Your task to perform on an android device: Open Android settings Image 0: 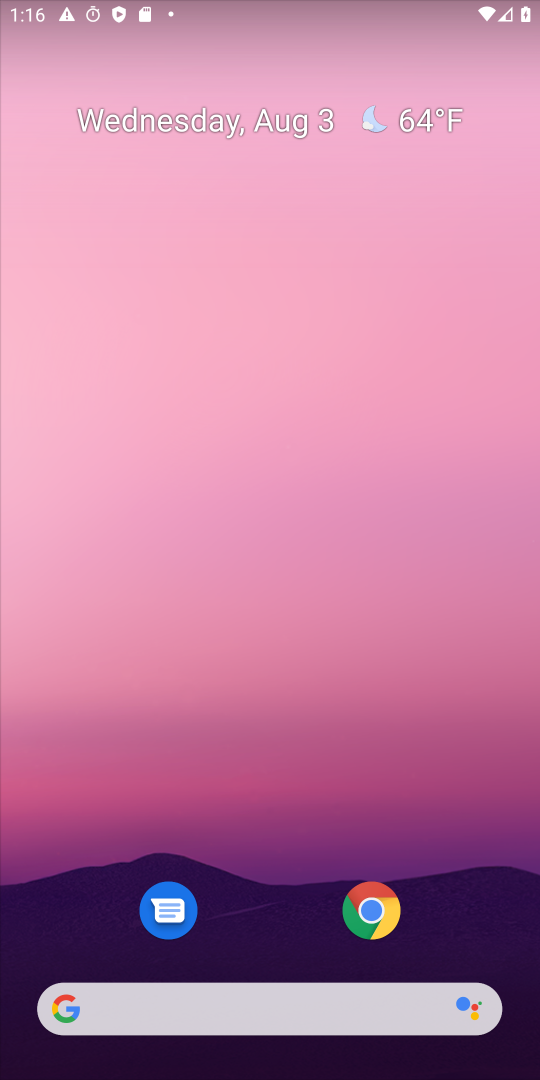
Step 0: drag from (308, 518) to (267, 98)
Your task to perform on an android device: Open Android settings Image 1: 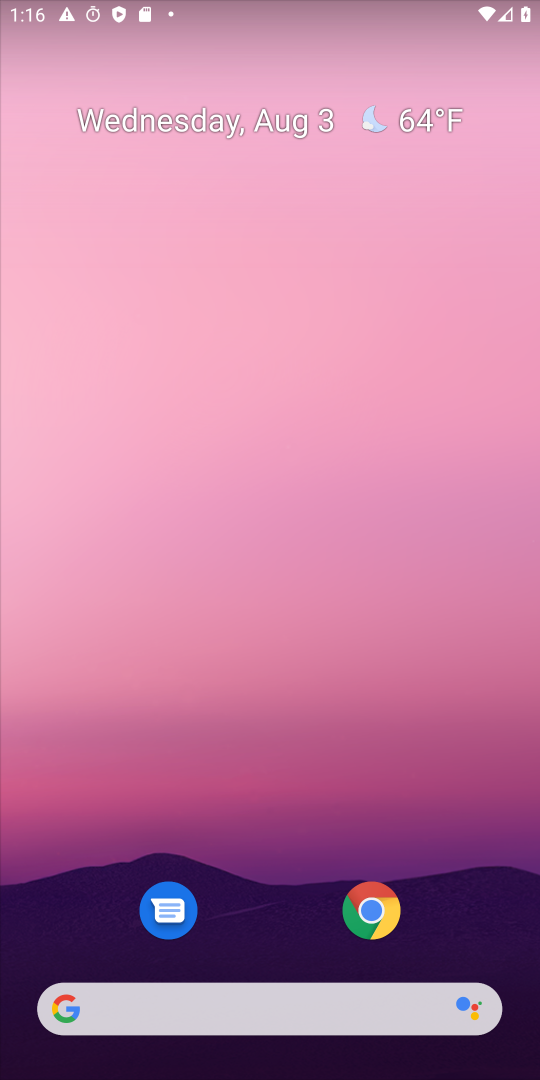
Step 1: drag from (338, 875) to (322, 4)
Your task to perform on an android device: Open Android settings Image 2: 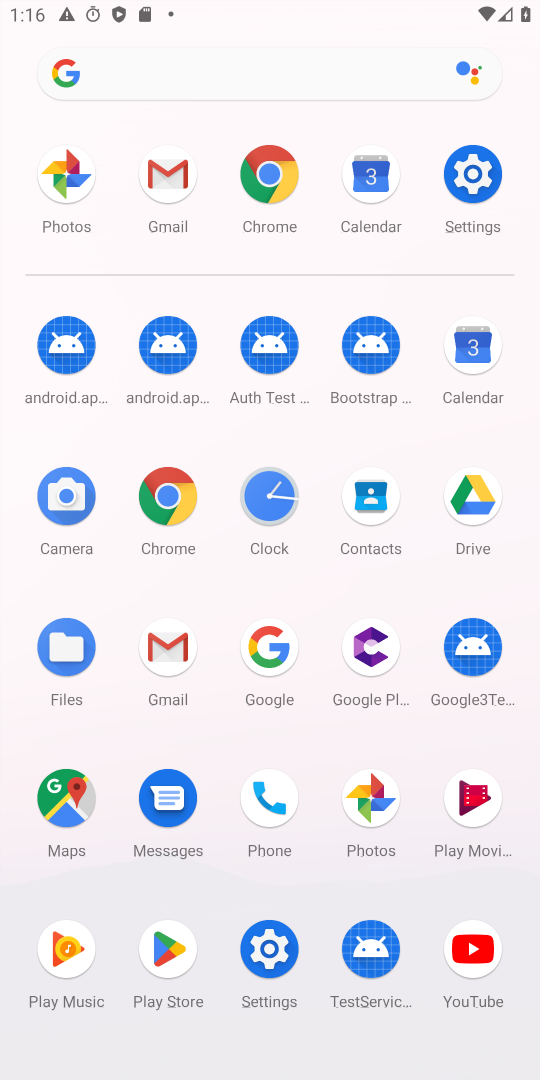
Step 2: click (475, 248)
Your task to perform on an android device: Open Android settings Image 3: 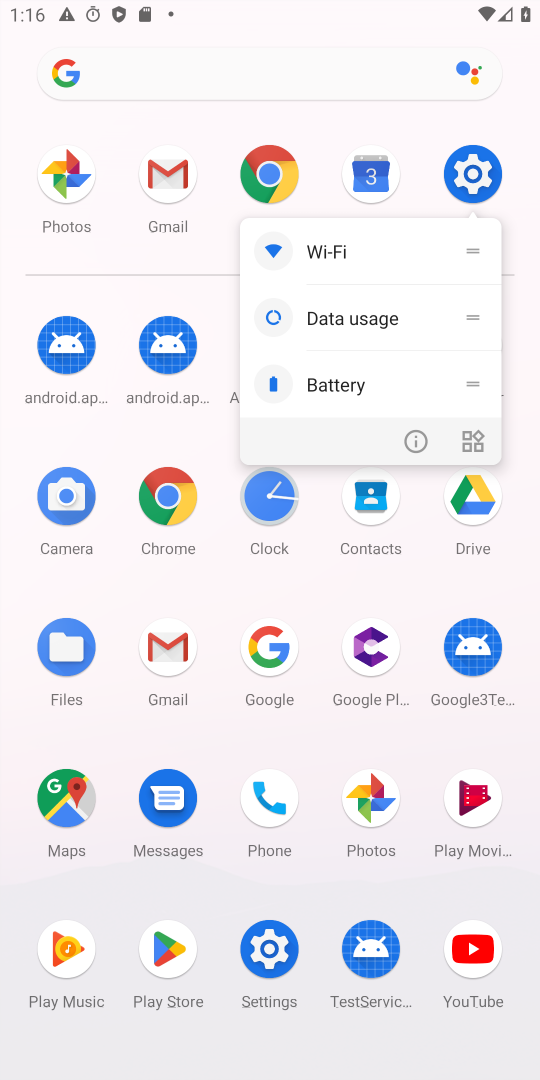
Step 3: click (487, 183)
Your task to perform on an android device: Open Android settings Image 4: 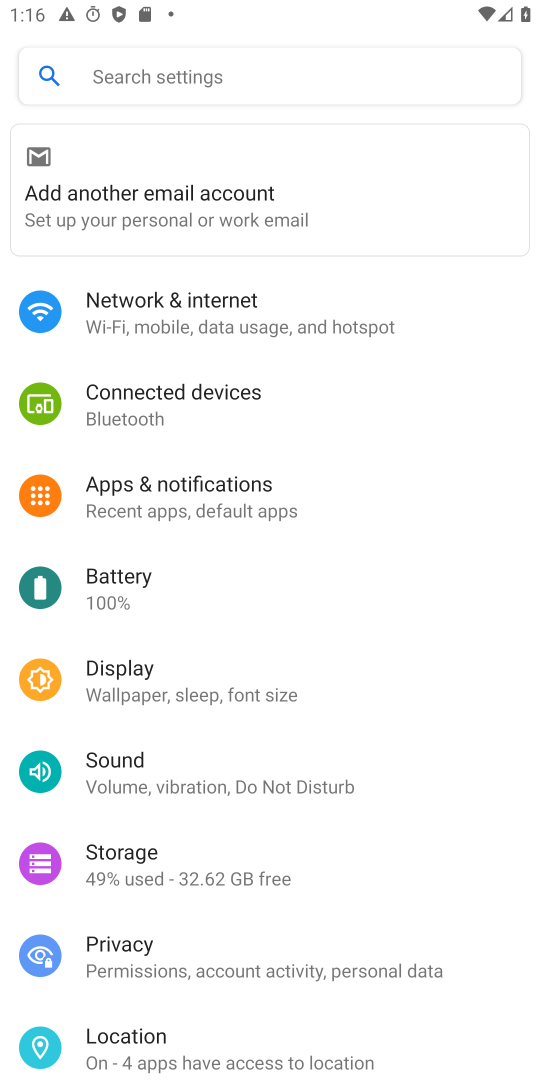
Step 4: drag from (300, 1014) to (312, 29)
Your task to perform on an android device: Open Android settings Image 5: 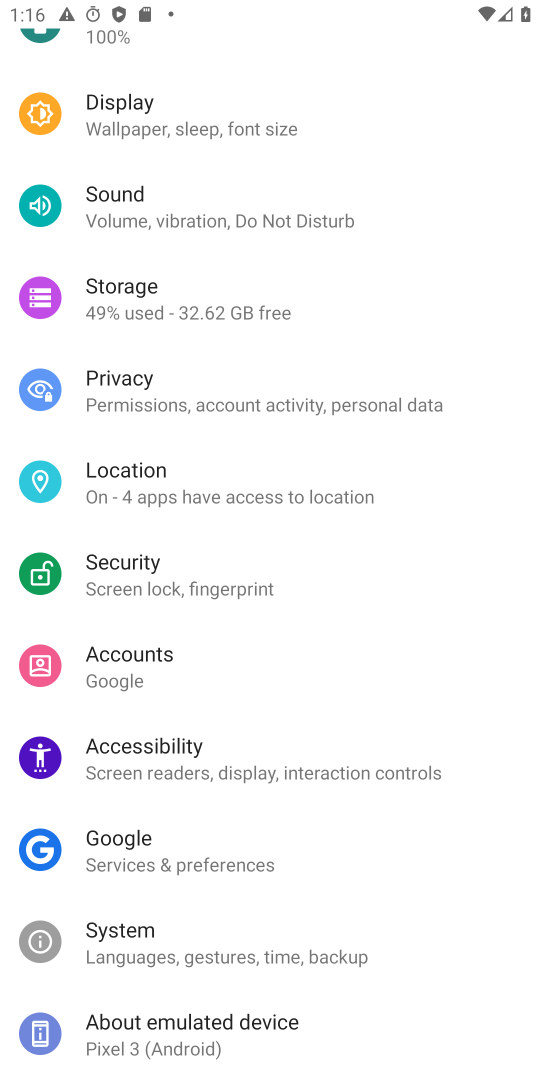
Step 5: click (182, 1027)
Your task to perform on an android device: Open Android settings Image 6: 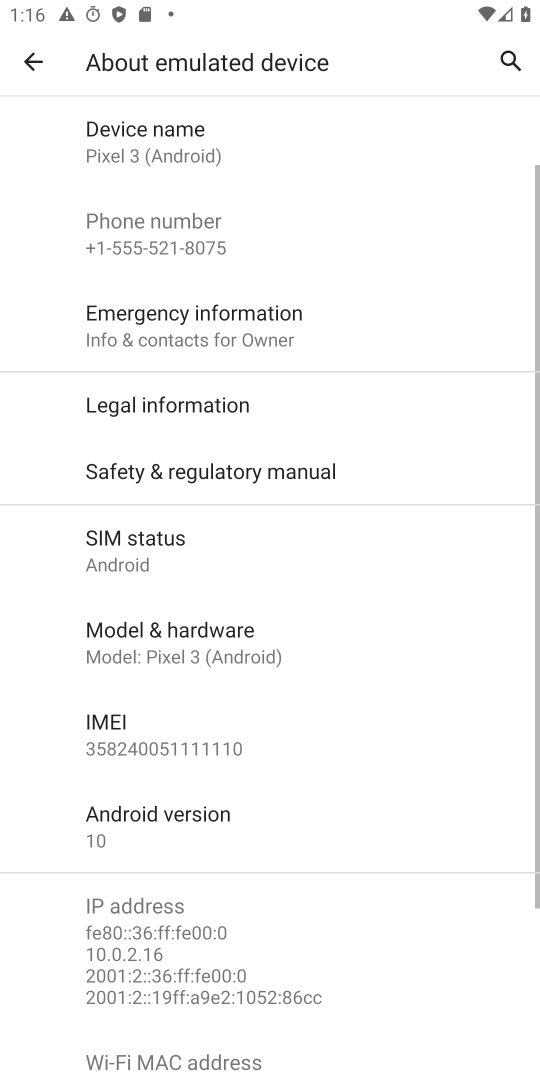
Step 6: click (226, 841)
Your task to perform on an android device: Open Android settings Image 7: 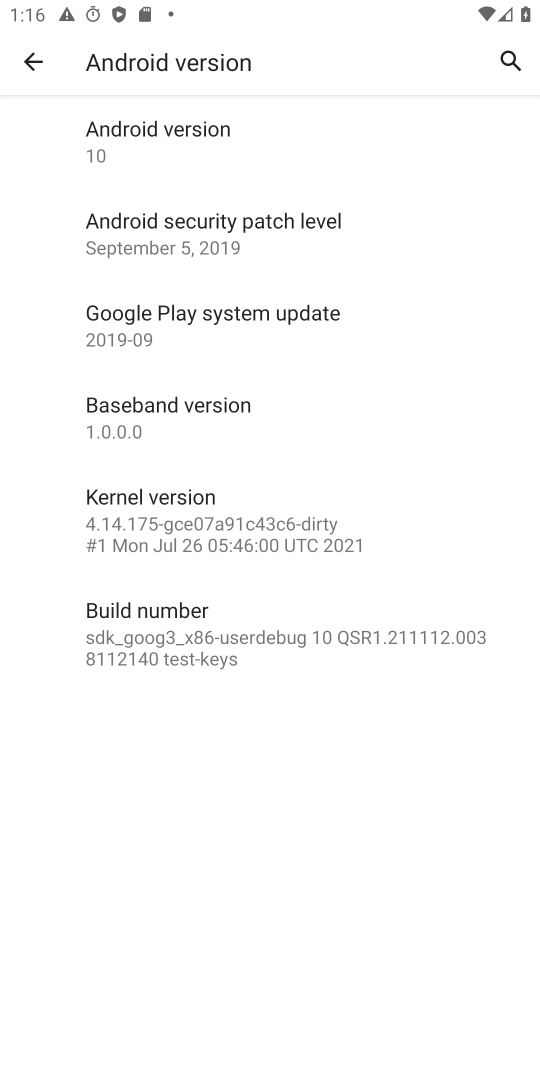
Step 7: task complete